Your task to perform on an android device: Open Google Chrome and open the bookmarks view Image 0: 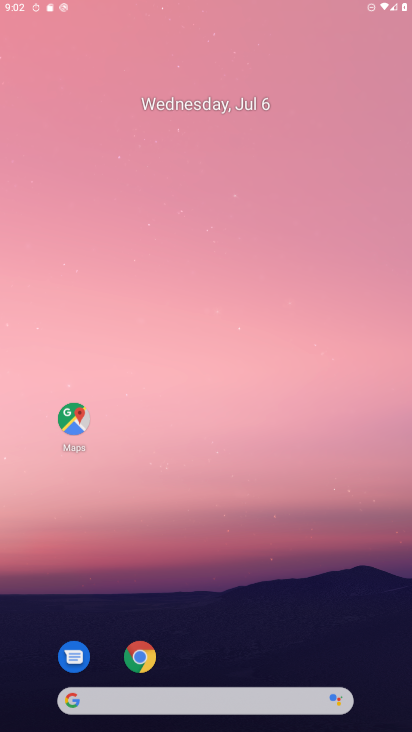
Step 0: drag from (364, 315) to (374, 181)
Your task to perform on an android device: Open Google Chrome and open the bookmarks view Image 1: 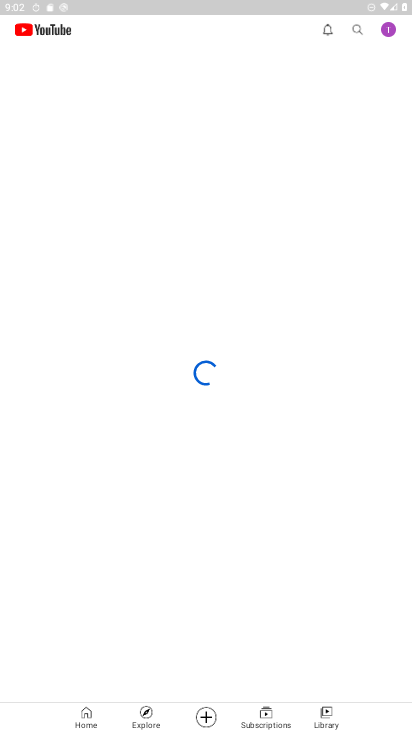
Step 1: press home button
Your task to perform on an android device: Open Google Chrome and open the bookmarks view Image 2: 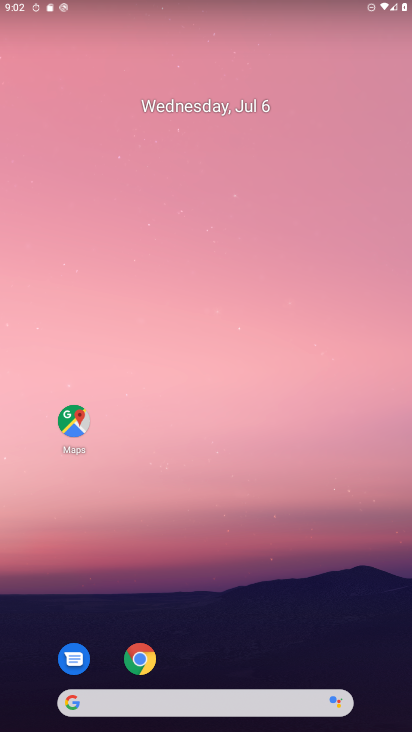
Step 2: drag from (303, 630) to (311, 164)
Your task to perform on an android device: Open Google Chrome and open the bookmarks view Image 3: 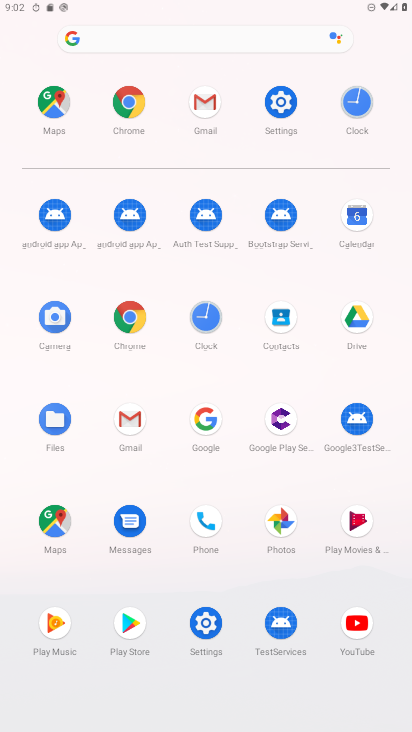
Step 3: click (142, 321)
Your task to perform on an android device: Open Google Chrome and open the bookmarks view Image 4: 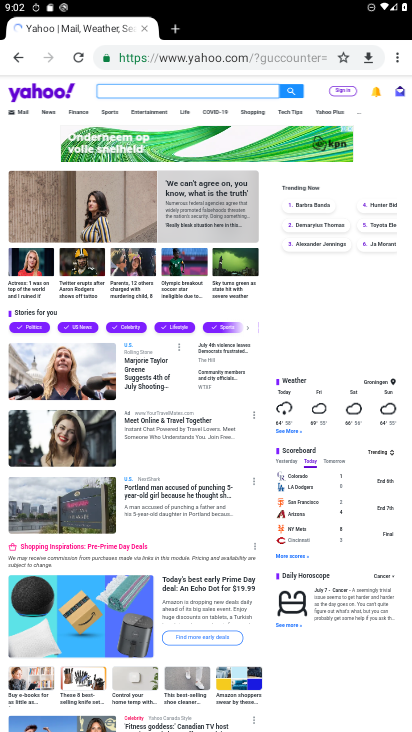
Step 4: click (396, 51)
Your task to perform on an android device: Open Google Chrome and open the bookmarks view Image 5: 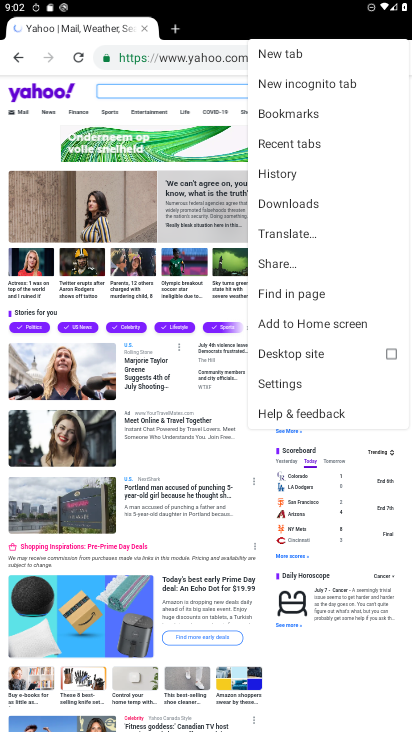
Step 5: click (318, 116)
Your task to perform on an android device: Open Google Chrome and open the bookmarks view Image 6: 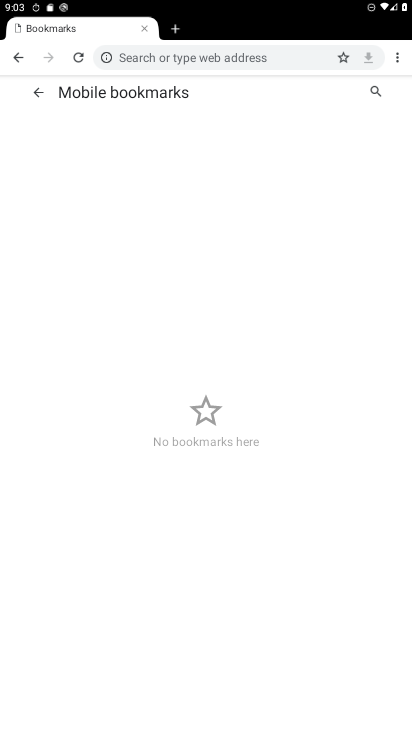
Step 6: task complete